Your task to perform on an android device: Open the phone app and click the voicemail tab. Image 0: 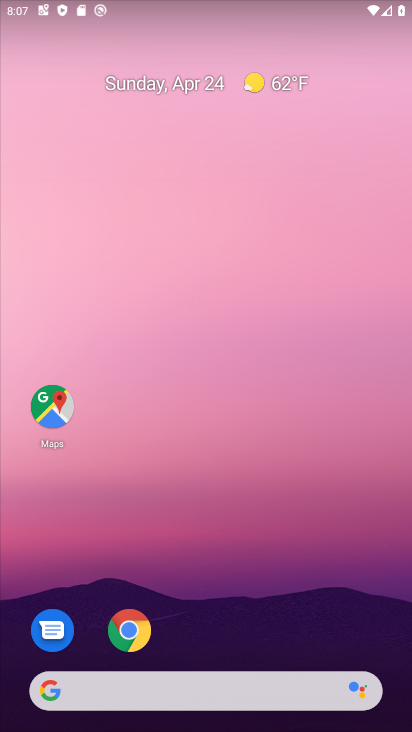
Step 0: drag from (211, 461) to (144, 31)
Your task to perform on an android device: Open the phone app and click the voicemail tab. Image 1: 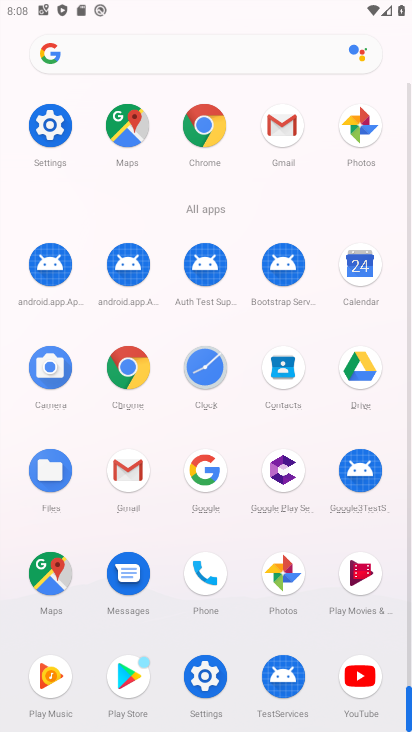
Step 1: drag from (9, 576) to (7, 268)
Your task to perform on an android device: Open the phone app and click the voicemail tab. Image 2: 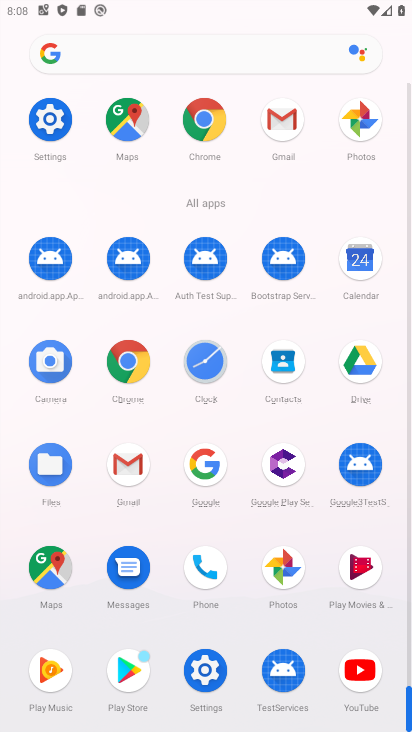
Step 2: drag from (3, 550) to (1, 293)
Your task to perform on an android device: Open the phone app and click the voicemail tab. Image 3: 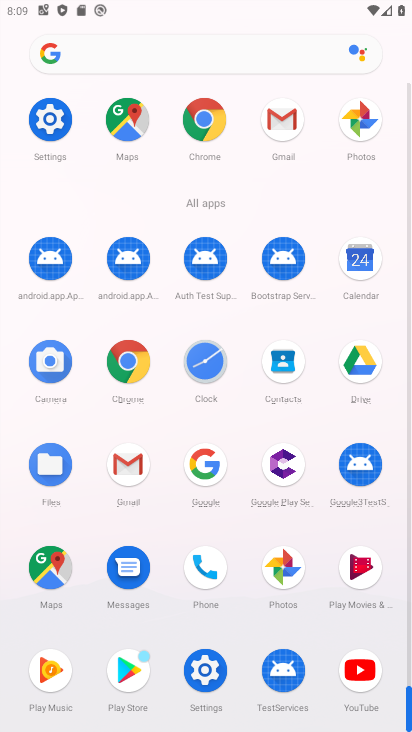
Step 3: click (201, 567)
Your task to perform on an android device: Open the phone app and click the voicemail tab. Image 4: 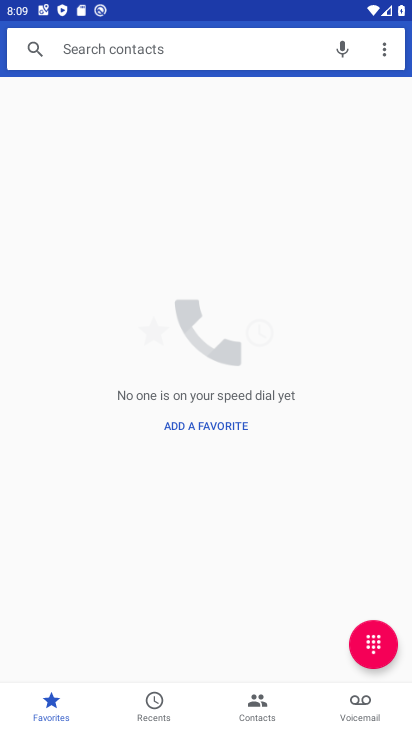
Step 4: click (327, 710)
Your task to perform on an android device: Open the phone app and click the voicemail tab. Image 5: 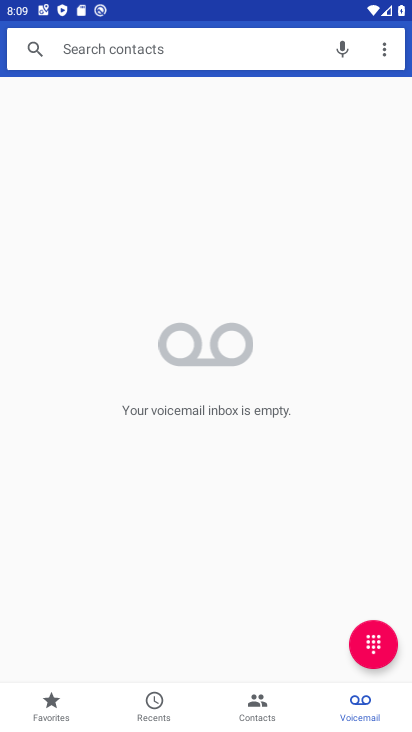
Step 5: task complete